Your task to perform on an android device: check the backup settings in the google photos Image 0: 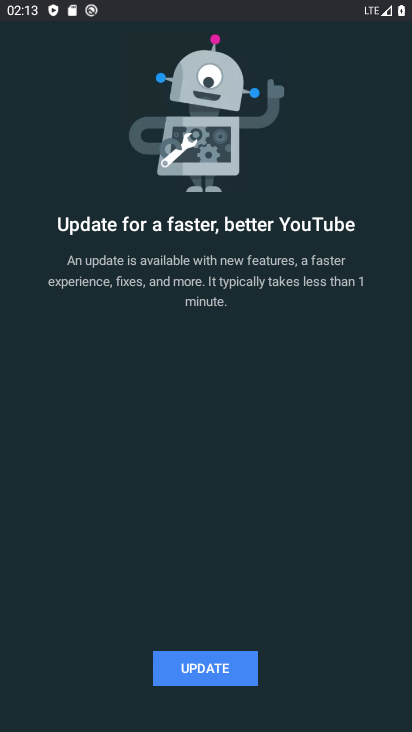
Step 0: drag from (398, 711) to (348, 302)
Your task to perform on an android device: check the backup settings in the google photos Image 1: 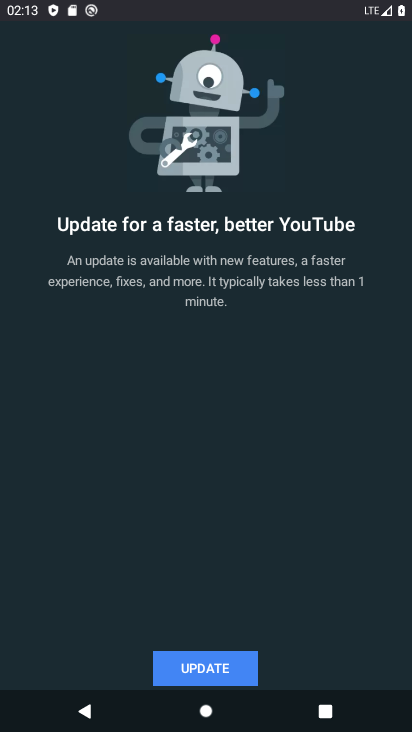
Step 1: press home button
Your task to perform on an android device: check the backup settings in the google photos Image 2: 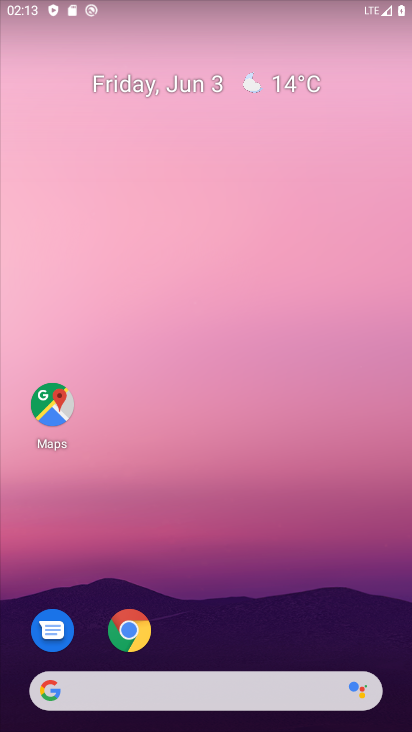
Step 2: drag from (403, 561) to (359, 128)
Your task to perform on an android device: check the backup settings in the google photos Image 3: 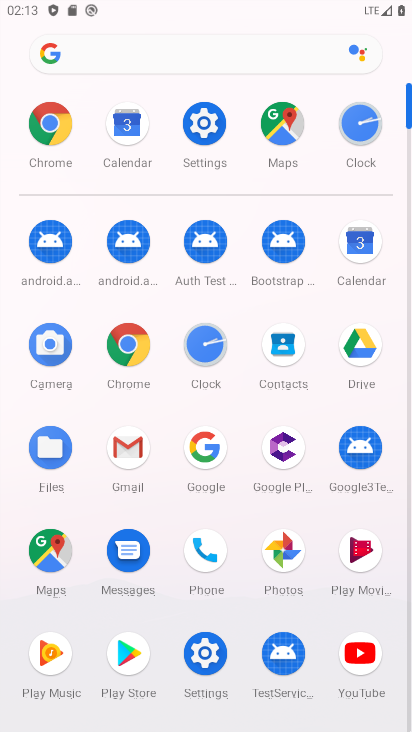
Step 3: click (265, 556)
Your task to perform on an android device: check the backup settings in the google photos Image 4: 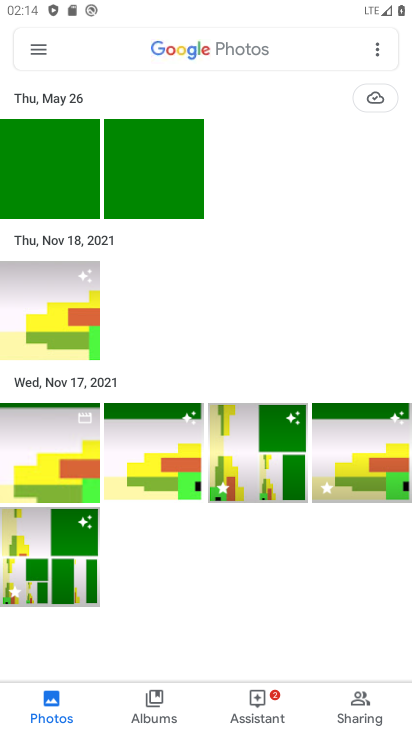
Step 4: click (41, 51)
Your task to perform on an android device: check the backup settings in the google photos Image 5: 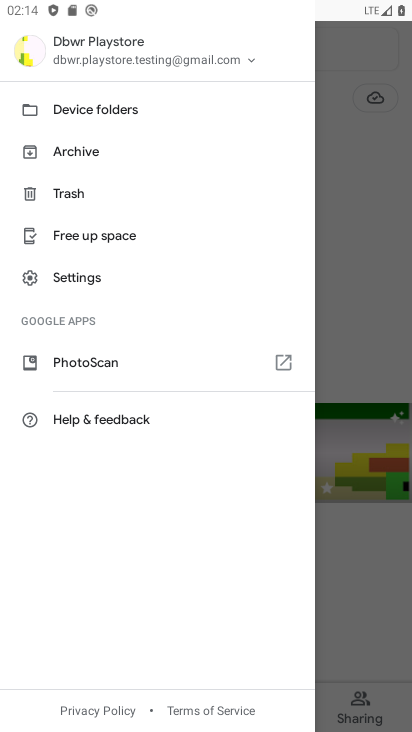
Step 5: click (58, 276)
Your task to perform on an android device: check the backup settings in the google photos Image 6: 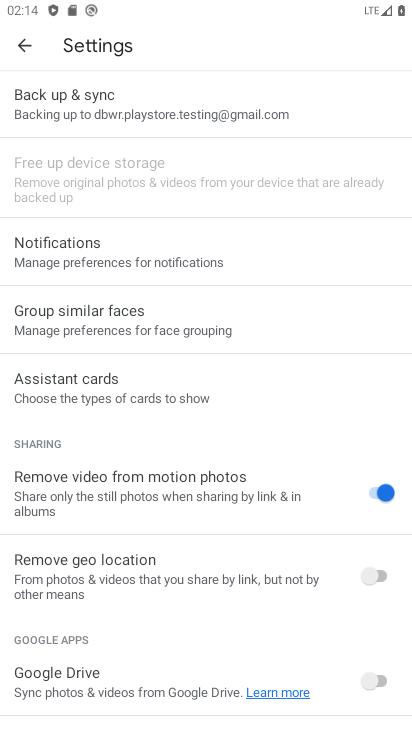
Step 6: click (71, 106)
Your task to perform on an android device: check the backup settings in the google photos Image 7: 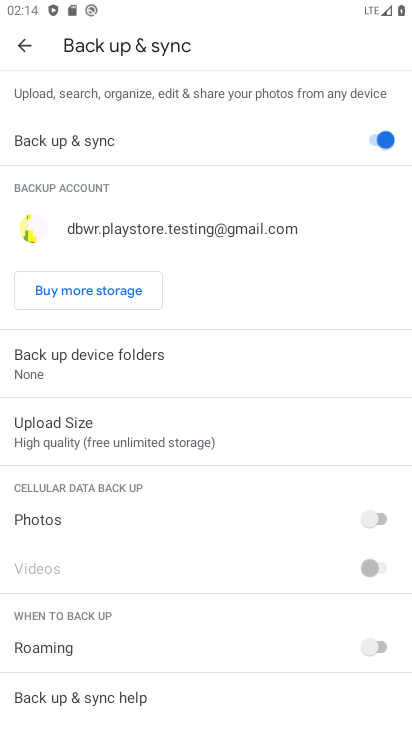
Step 7: task complete